Your task to perform on an android device: toggle location history Image 0: 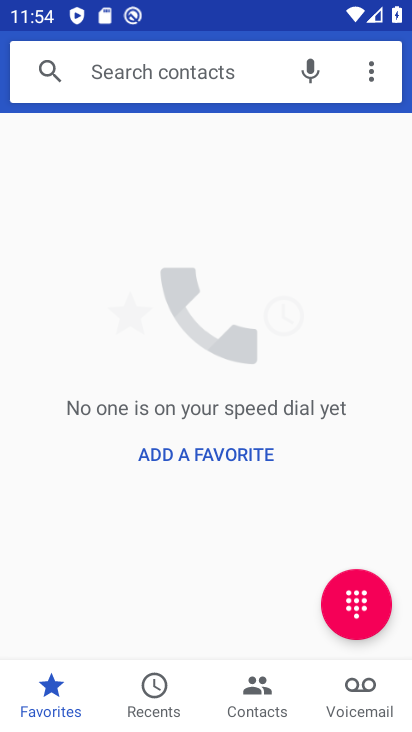
Step 0: press home button
Your task to perform on an android device: toggle location history Image 1: 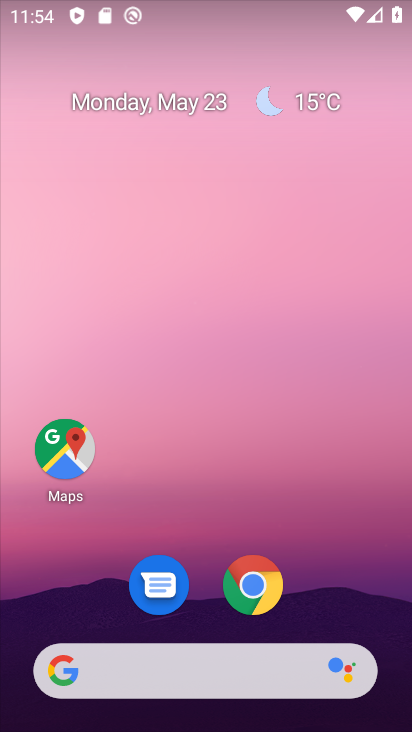
Step 1: drag from (218, 482) to (233, 17)
Your task to perform on an android device: toggle location history Image 2: 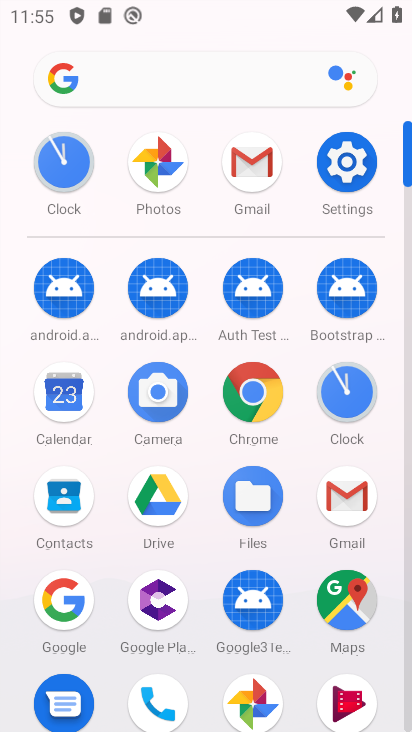
Step 2: click (338, 154)
Your task to perform on an android device: toggle location history Image 3: 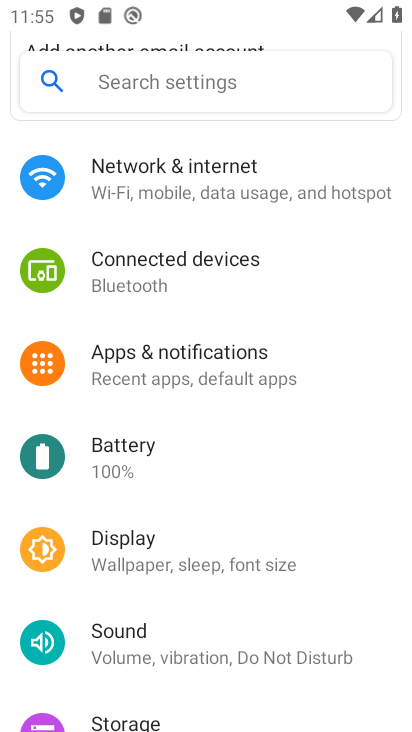
Step 3: drag from (243, 492) to (247, 115)
Your task to perform on an android device: toggle location history Image 4: 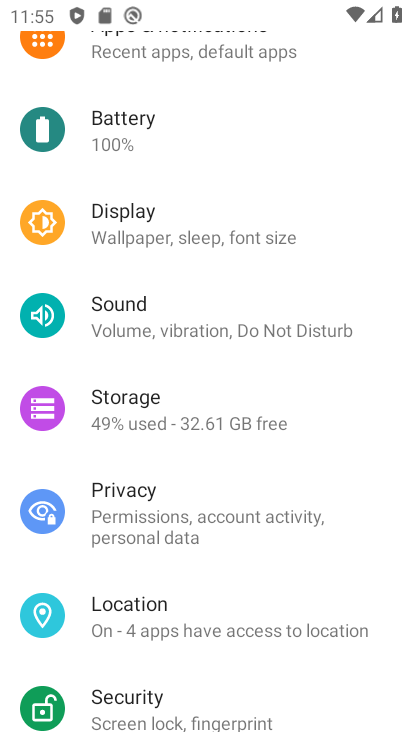
Step 4: click (187, 610)
Your task to perform on an android device: toggle location history Image 5: 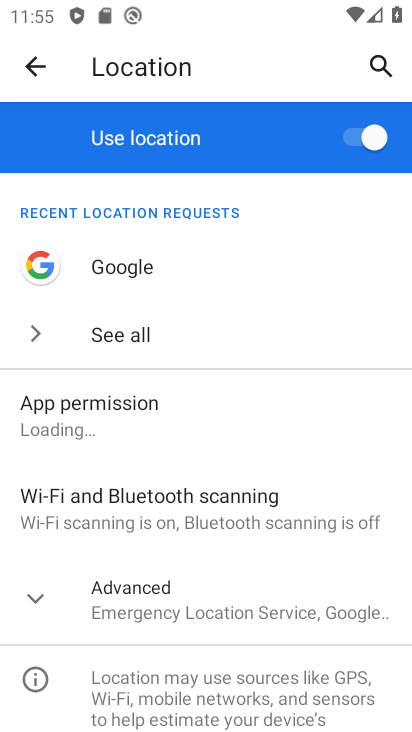
Step 5: drag from (239, 496) to (191, 170)
Your task to perform on an android device: toggle location history Image 6: 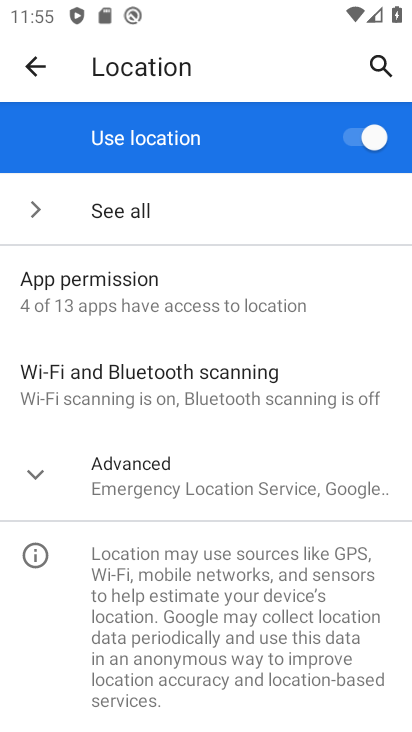
Step 6: click (34, 472)
Your task to perform on an android device: toggle location history Image 7: 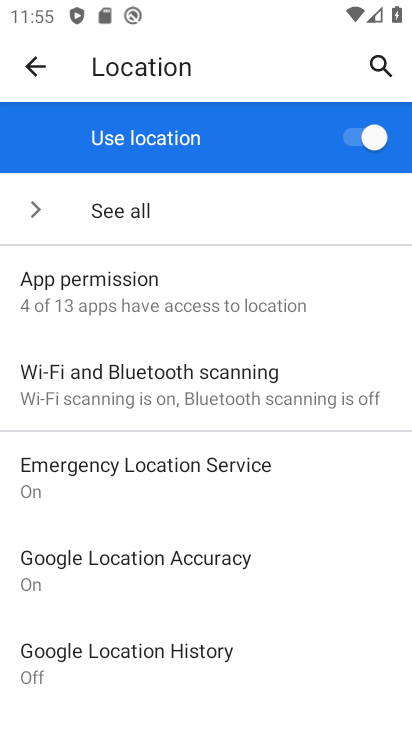
Step 7: click (234, 655)
Your task to perform on an android device: toggle location history Image 8: 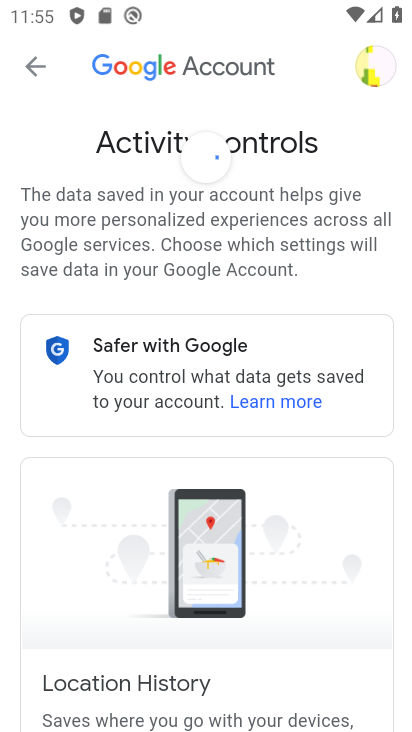
Step 8: task complete